Your task to perform on an android device: turn on the 24-hour format for clock Image 0: 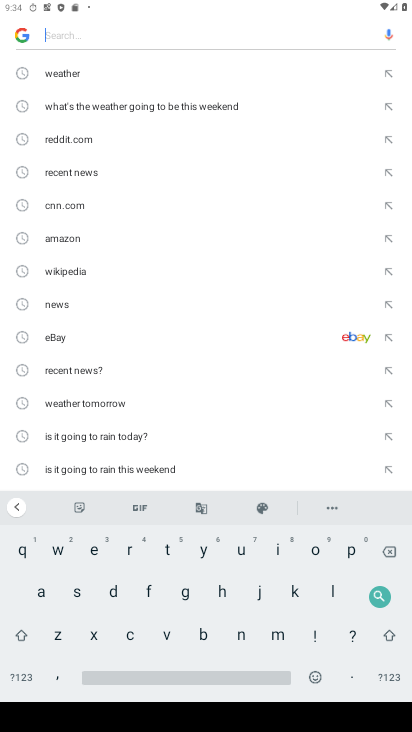
Step 0: task complete